Your task to perform on an android device: turn on sleep mode Image 0: 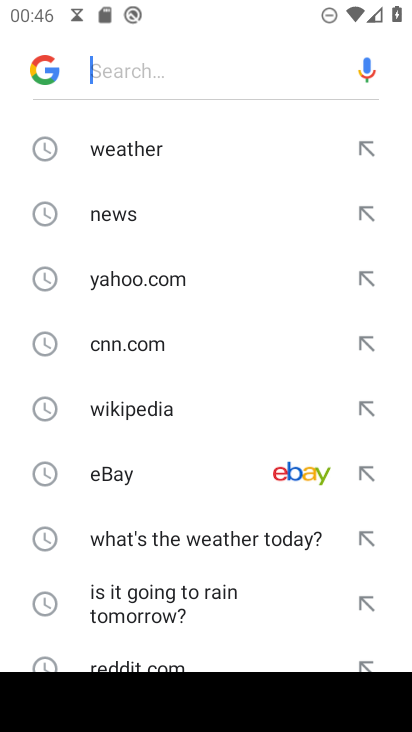
Step 0: press home button
Your task to perform on an android device: turn on sleep mode Image 1: 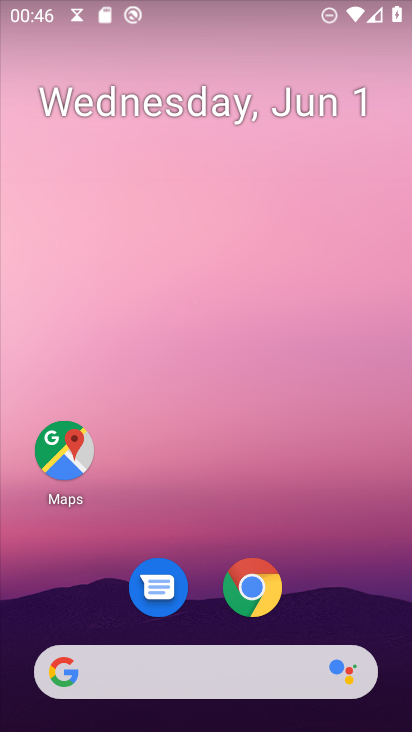
Step 1: drag from (337, 620) to (345, 44)
Your task to perform on an android device: turn on sleep mode Image 2: 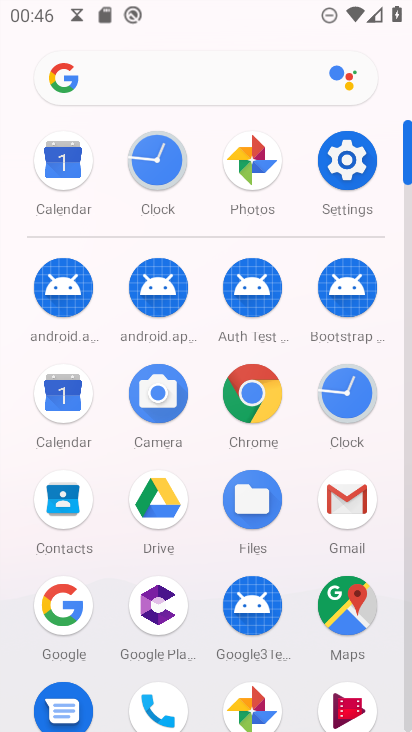
Step 2: click (344, 162)
Your task to perform on an android device: turn on sleep mode Image 3: 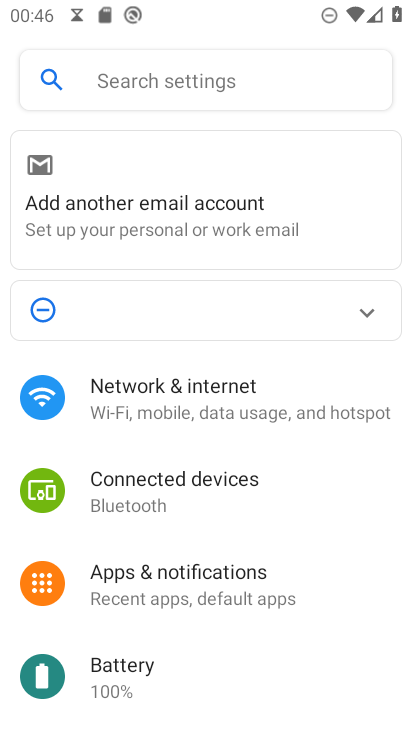
Step 3: task complete